Your task to perform on an android device: Turn off the flashlight Image 0: 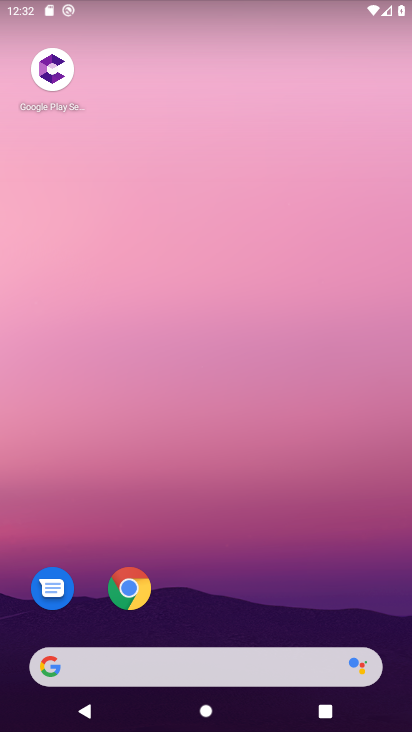
Step 0: drag from (255, 3) to (251, 285)
Your task to perform on an android device: Turn off the flashlight Image 1: 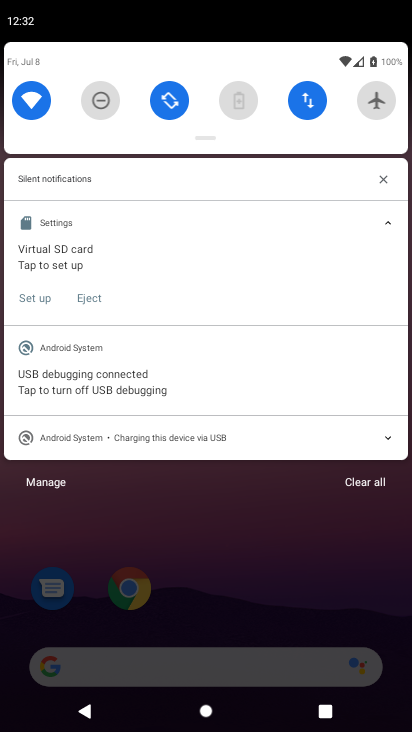
Step 1: task complete